Your task to perform on an android device: Search for a coffee table on Crate & Barrel Image 0: 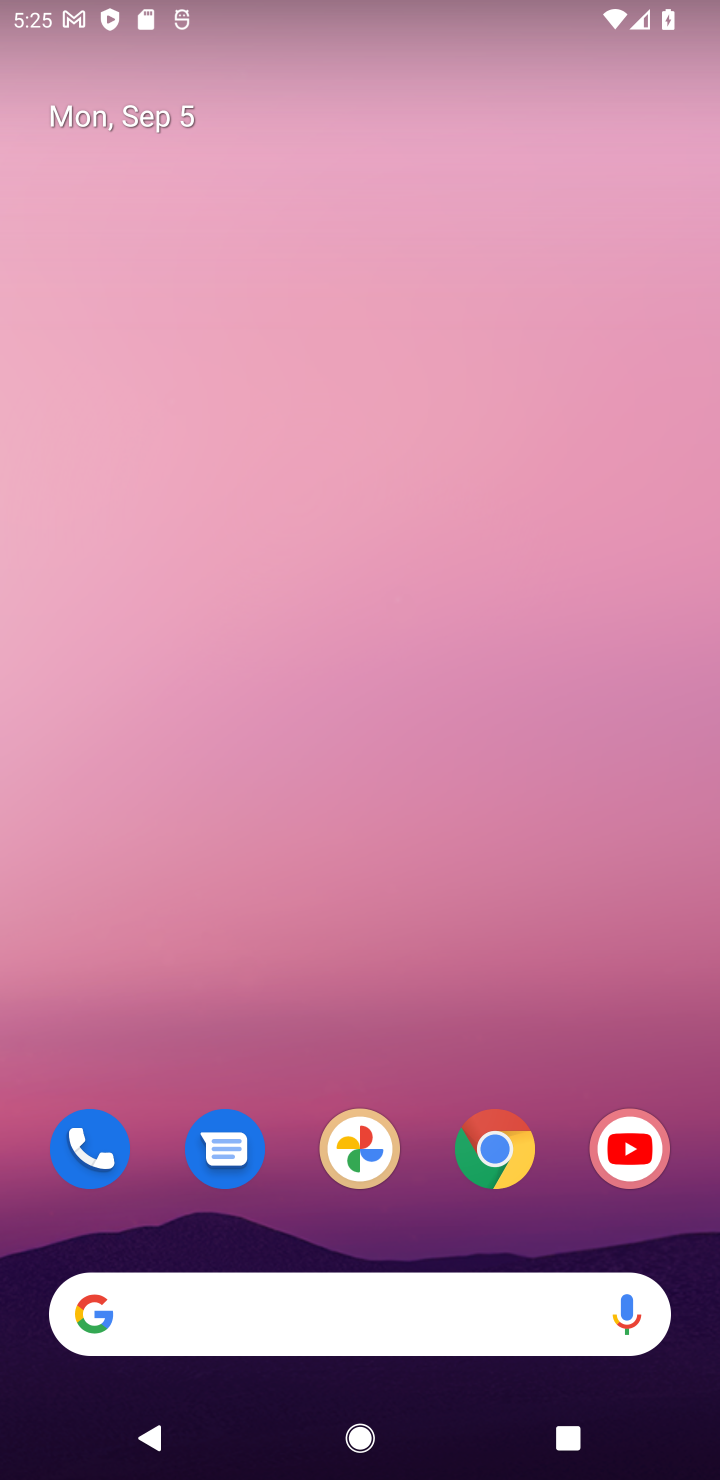
Step 0: click (491, 1148)
Your task to perform on an android device: Search for a coffee table on Crate & Barrel Image 1: 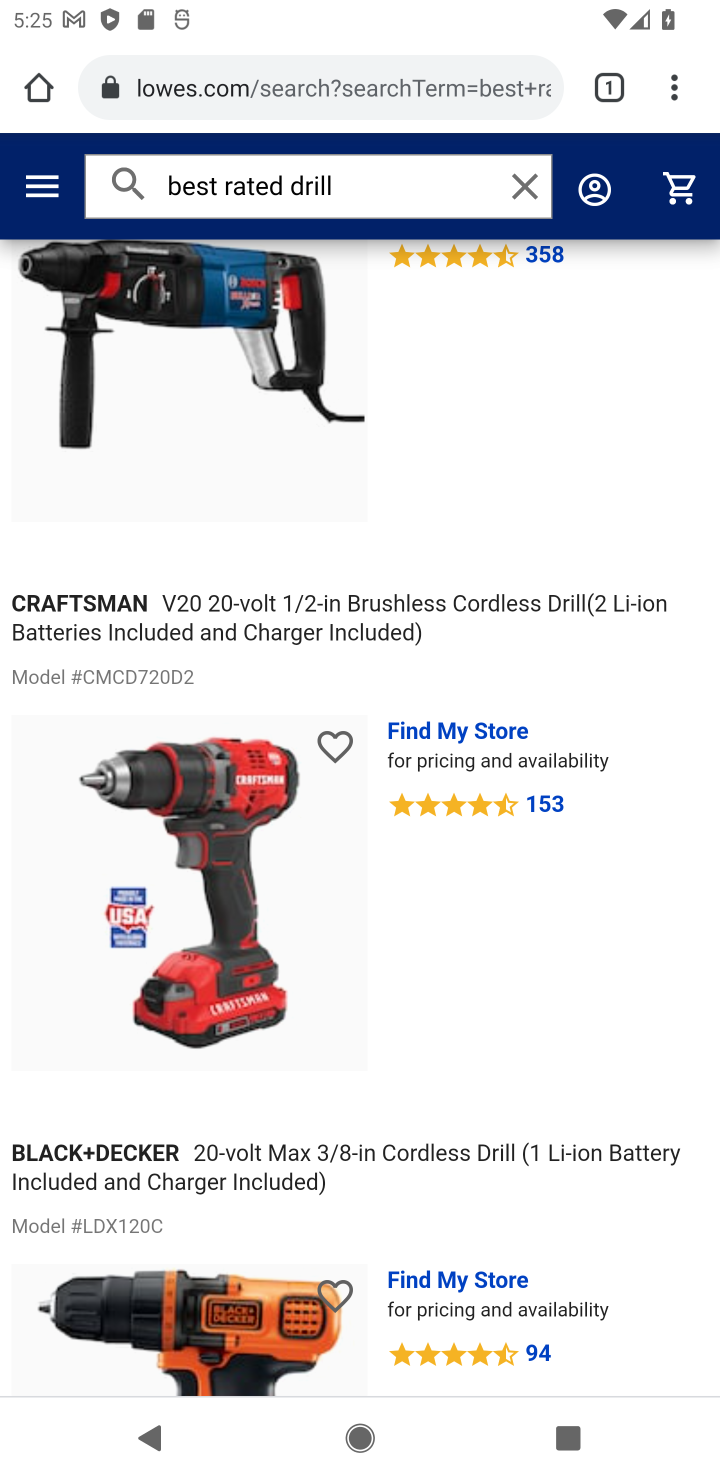
Step 1: click (360, 62)
Your task to perform on an android device: Search for a coffee table on Crate & Barrel Image 2: 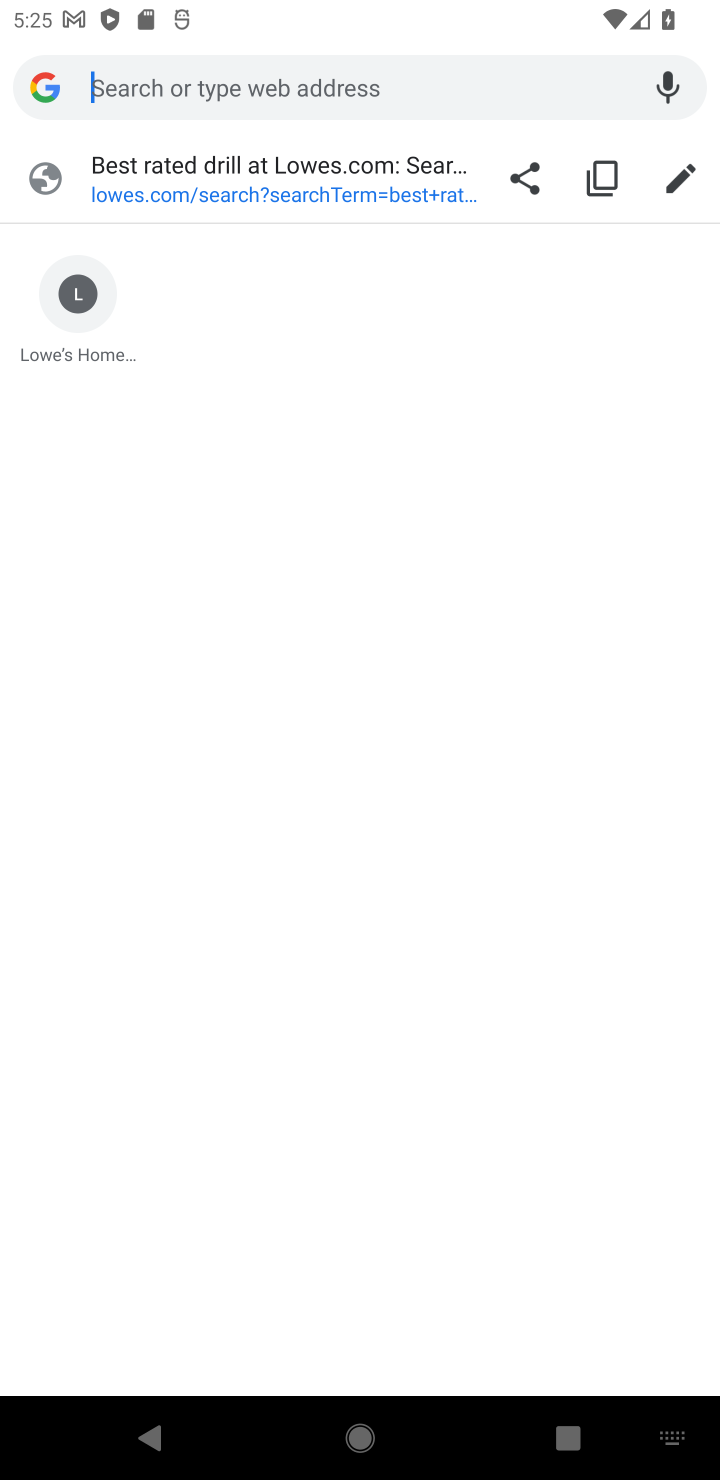
Step 2: type " Crate & Barrel"
Your task to perform on an android device: Search for a coffee table on Crate & Barrel Image 3: 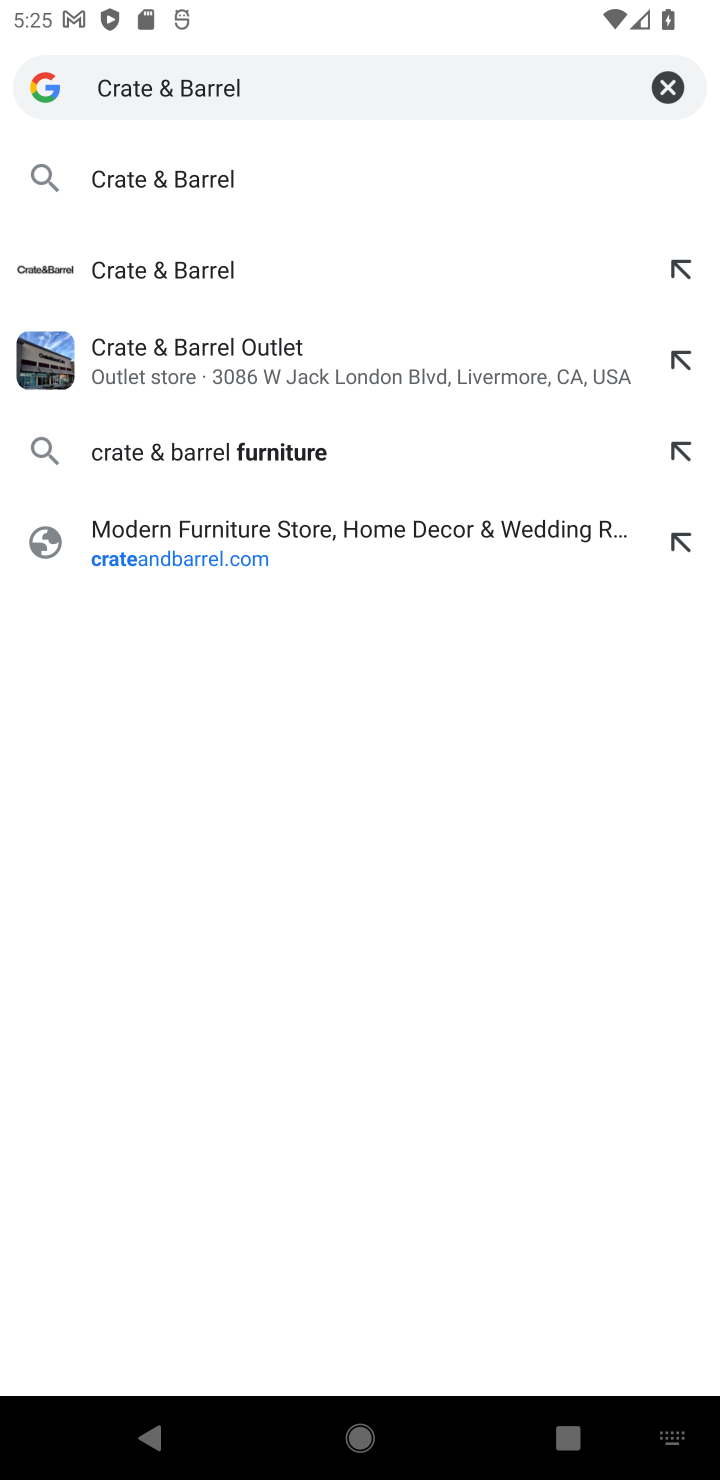
Step 3: click (172, 265)
Your task to perform on an android device: Search for a coffee table on Crate & Barrel Image 4: 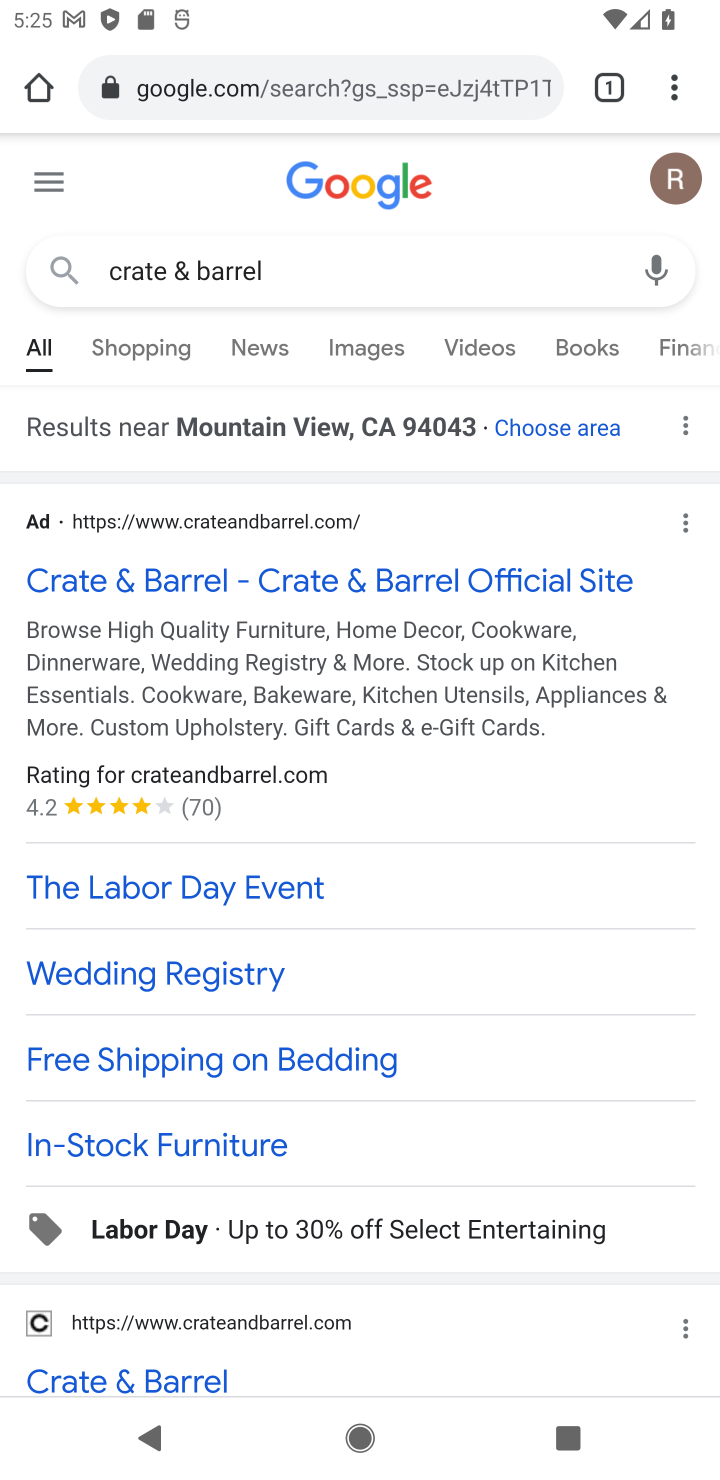
Step 4: click (154, 600)
Your task to perform on an android device: Search for a coffee table on Crate & Barrel Image 5: 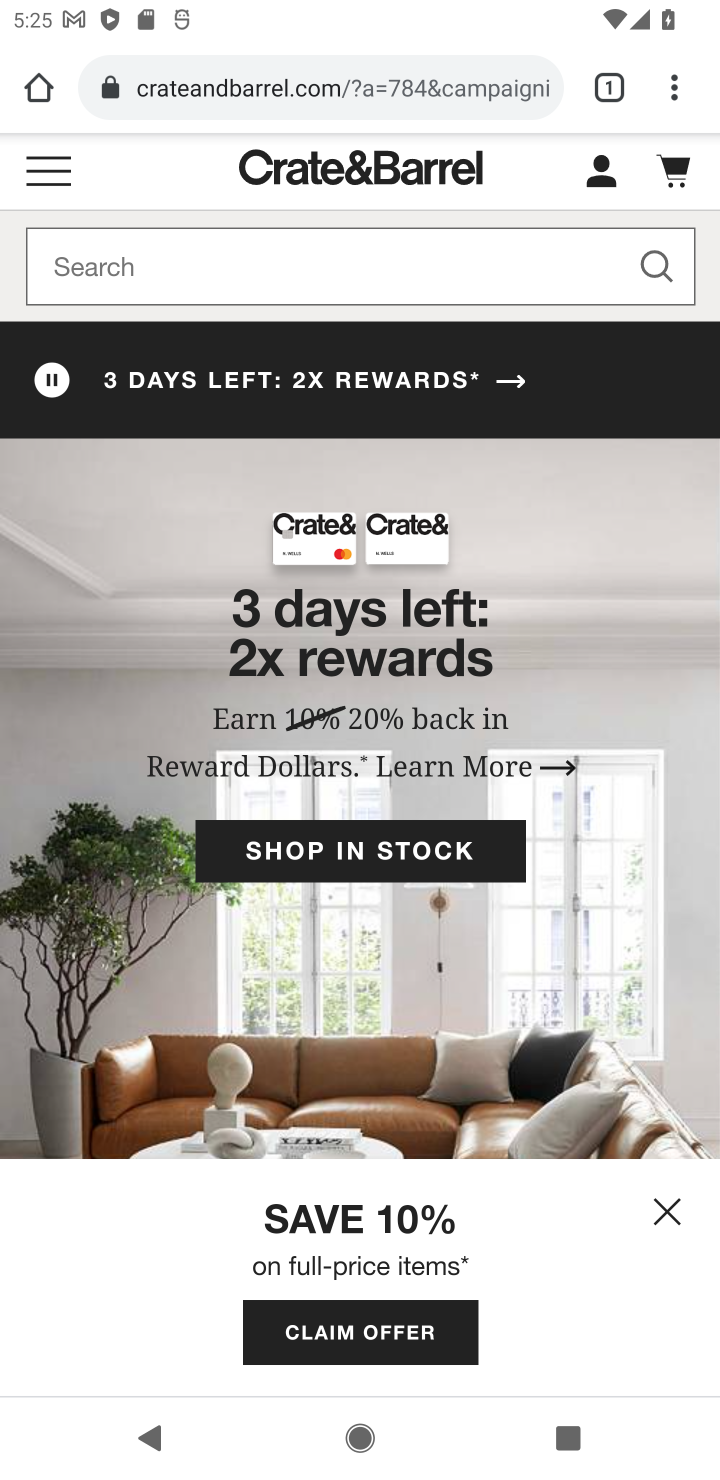
Step 5: click (175, 279)
Your task to perform on an android device: Search for a coffee table on Crate & Barrel Image 6: 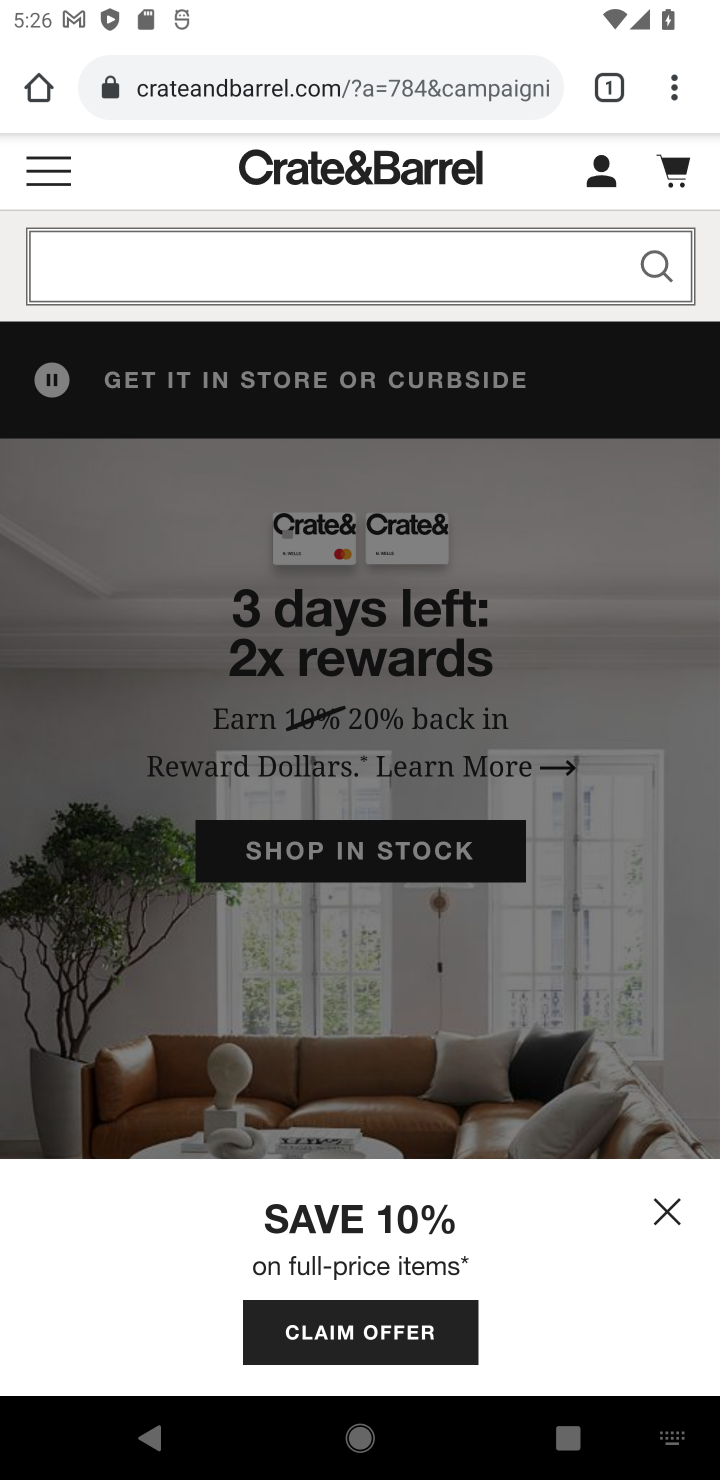
Step 6: type "coffee table"
Your task to perform on an android device: Search for a coffee table on Crate & Barrel Image 7: 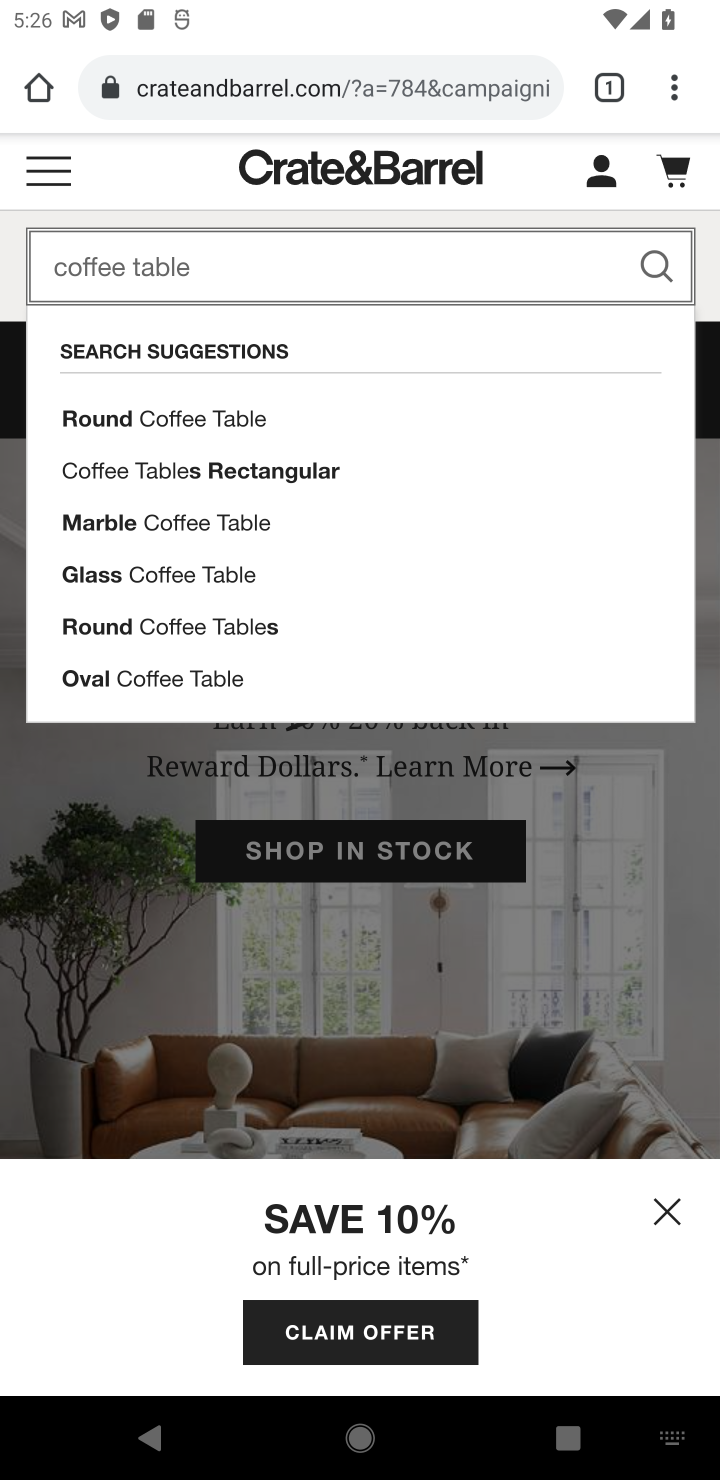
Step 7: click (660, 271)
Your task to perform on an android device: Search for a coffee table on Crate & Barrel Image 8: 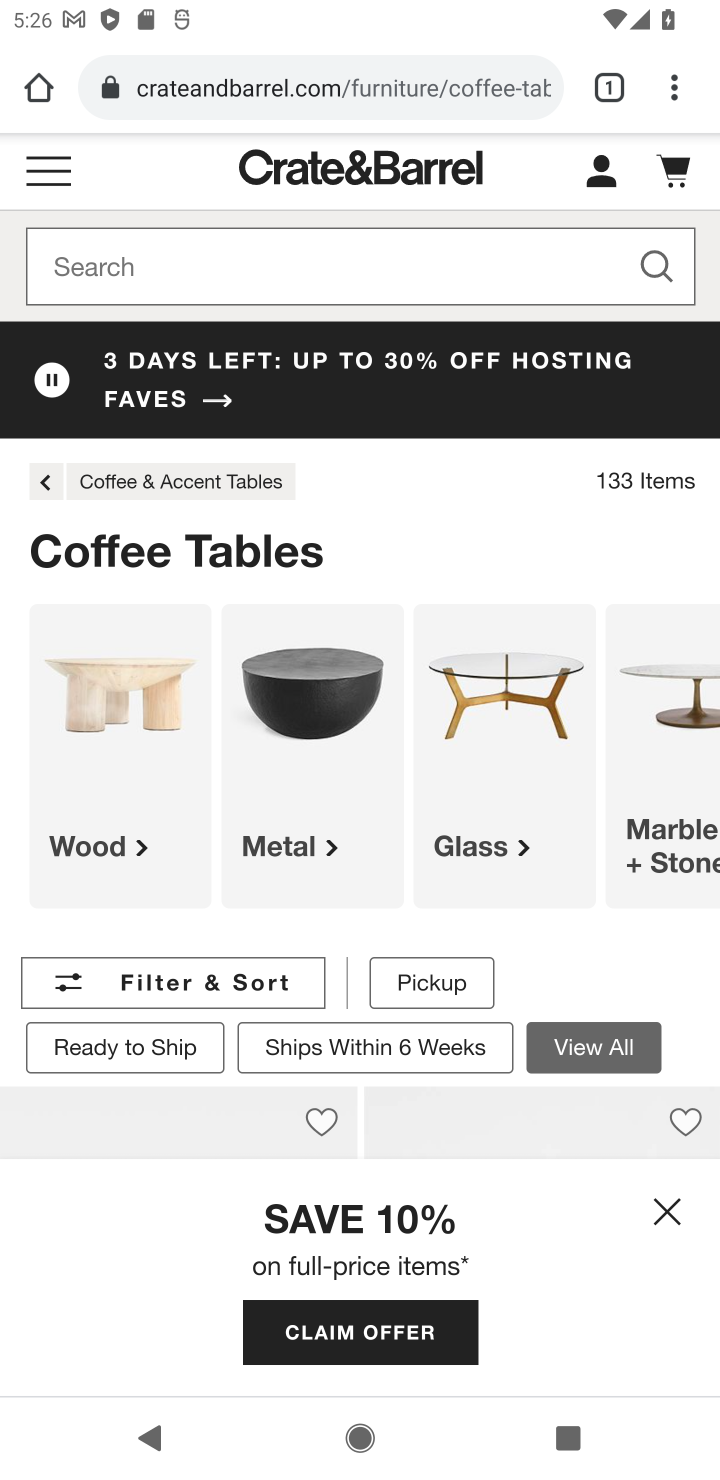
Step 8: drag from (396, 908) to (373, 432)
Your task to perform on an android device: Search for a coffee table on Crate & Barrel Image 9: 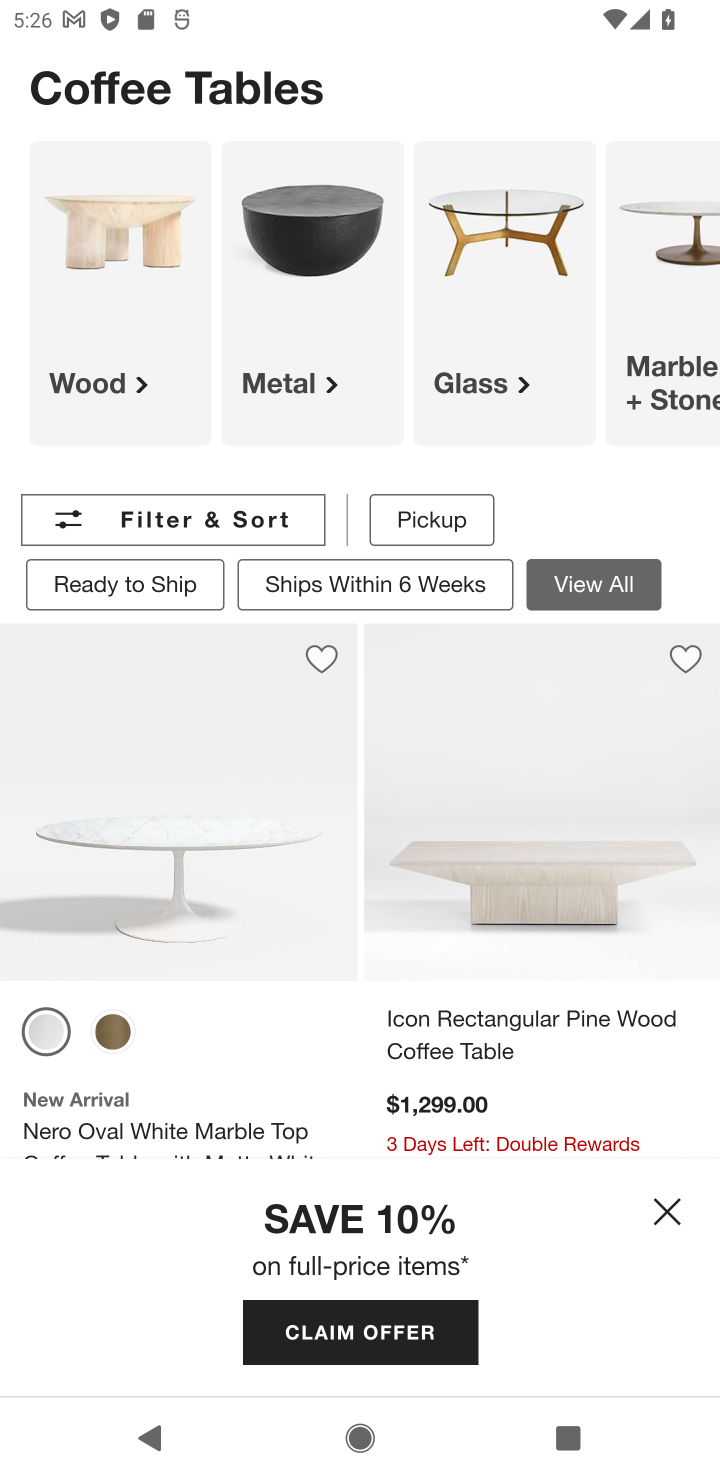
Step 9: click (662, 1203)
Your task to perform on an android device: Search for a coffee table on Crate & Barrel Image 10: 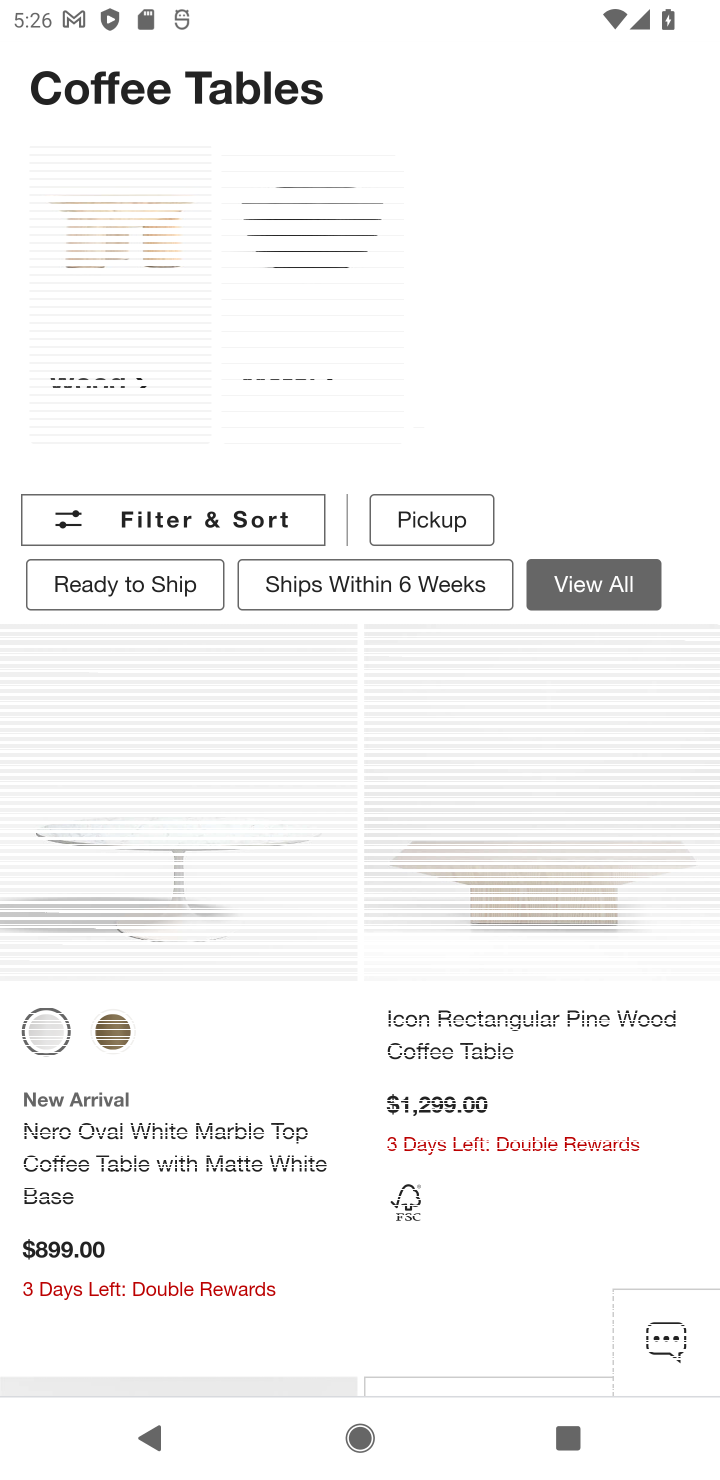
Step 10: task complete